Your task to perform on an android device: turn off picture-in-picture Image 0: 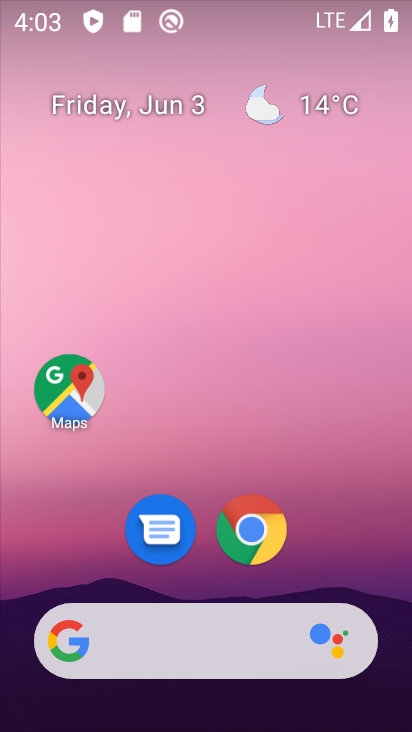
Step 0: press home button
Your task to perform on an android device: turn off picture-in-picture Image 1: 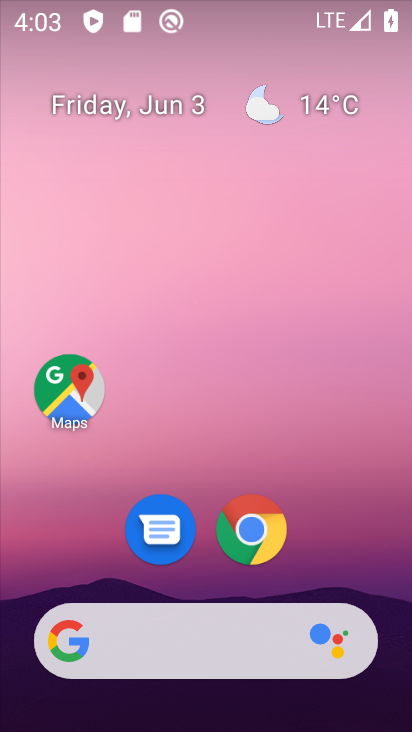
Step 1: click (241, 533)
Your task to perform on an android device: turn off picture-in-picture Image 2: 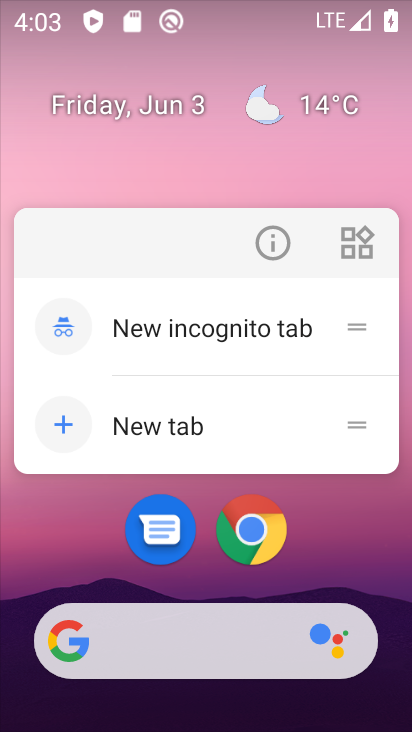
Step 2: click (276, 232)
Your task to perform on an android device: turn off picture-in-picture Image 3: 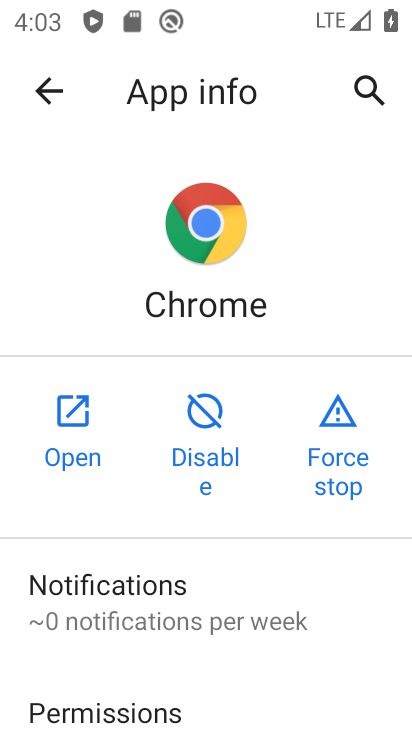
Step 3: drag from (210, 675) to (251, 194)
Your task to perform on an android device: turn off picture-in-picture Image 4: 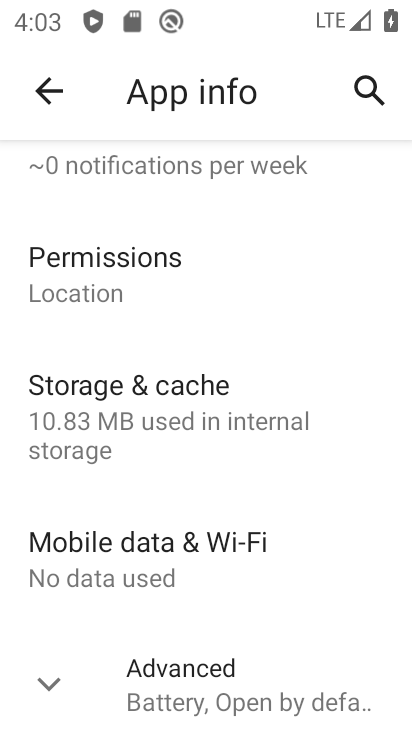
Step 4: click (72, 694)
Your task to perform on an android device: turn off picture-in-picture Image 5: 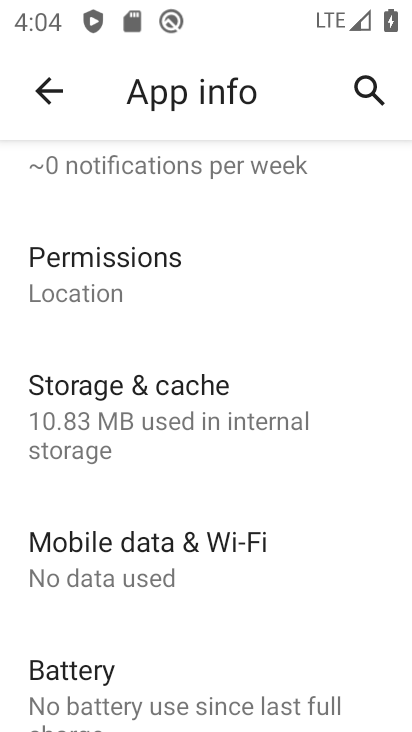
Step 5: drag from (173, 675) to (232, 261)
Your task to perform on an android device: turn off picture-in-picture Image 6: 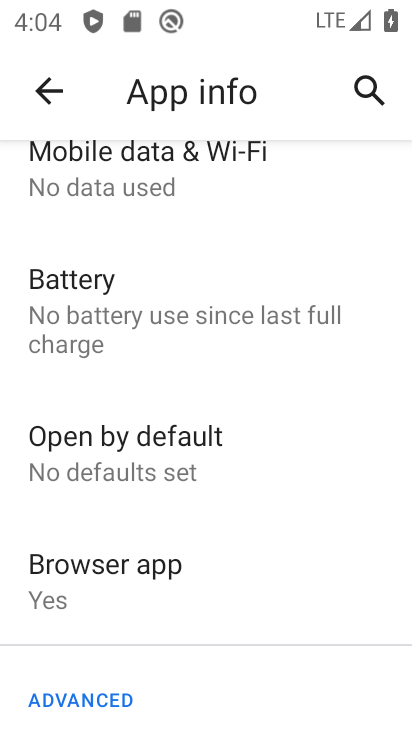
Step 6: drag from (165, 681) to (205, 273)
Your task to perform on an android device: turn off picture-in-picture Image 7: 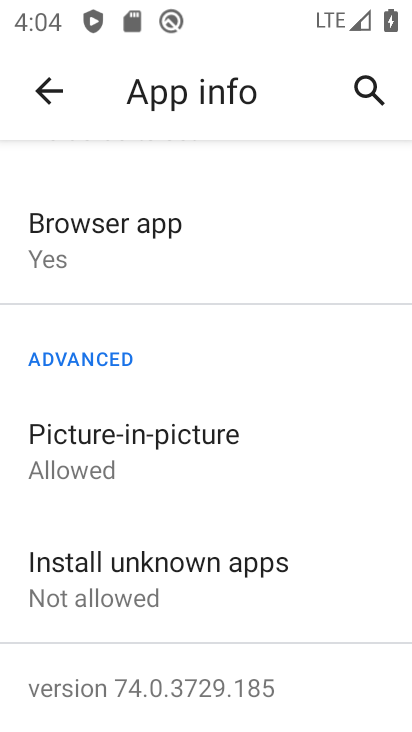
Step 7: click (136, 455)
Your task to perform on an android device: turn off picture-in-picture Image 8: 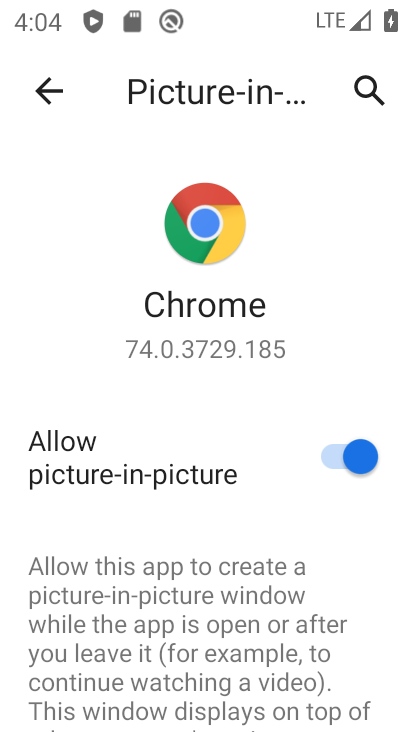
Step 8: click (339, 448)
Your task to perform on an android device: turn off picture-in-picture Image 9: 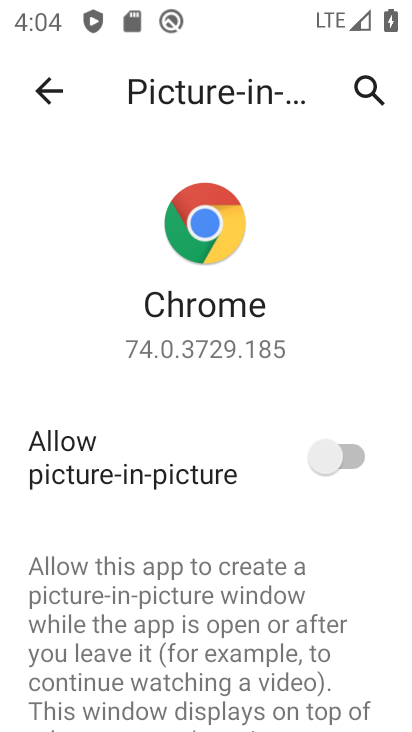
Step 9: task complete